Your task to perform on an android device: Go to calendar. Show me events next week Image 0: 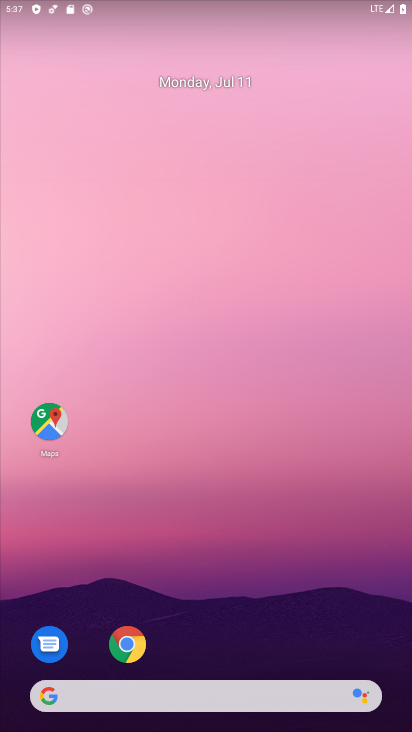
Step 0: drag from (159, 688) to (361, 8)
Your task to perform on an android device: Go to calendar. Show me events next week Image 1: 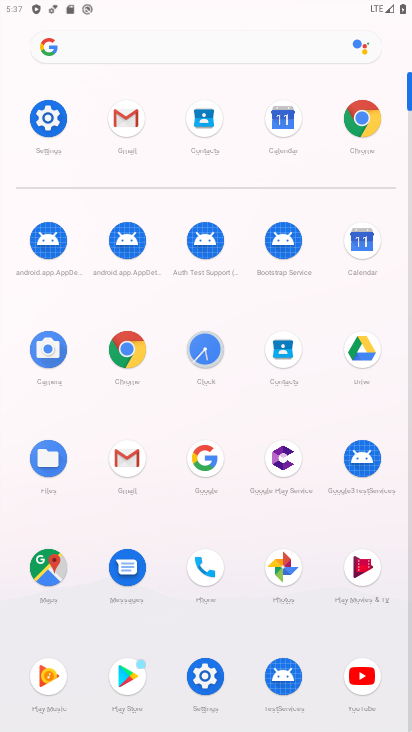
Step 1: click (368, 237)
Your task to perform on an android device: Go to calendar. Show me events next week Image 2: 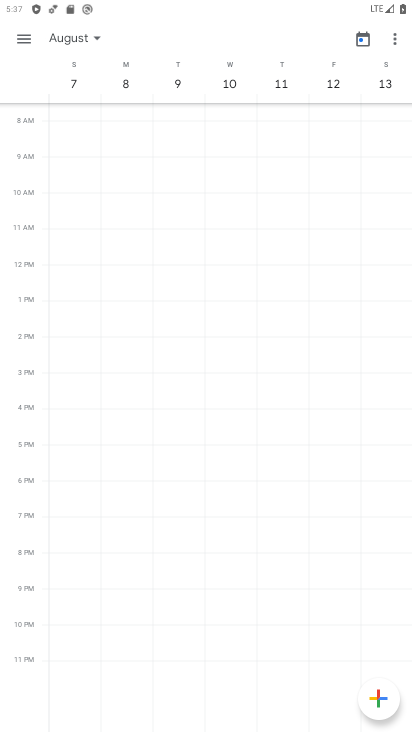
Step 2: click (98, 36)
Your task to perform on an android device: Go to calendar. Show me events next week Image 3: 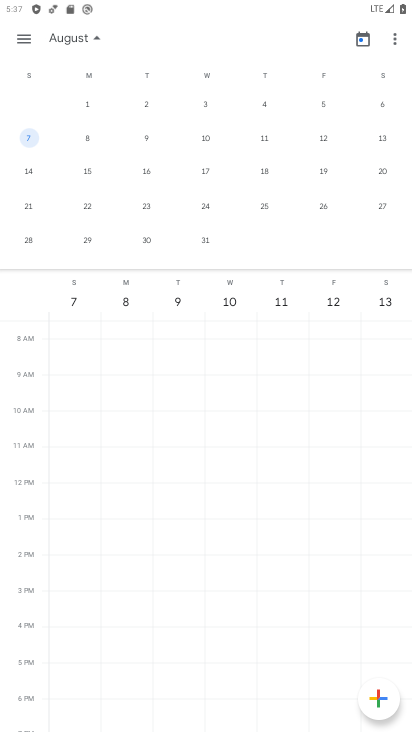
Step 3: drag from (88, 168) to (410, 145)
Your task to perform on an android device: Go to calendar. Show me events next week Image 4: 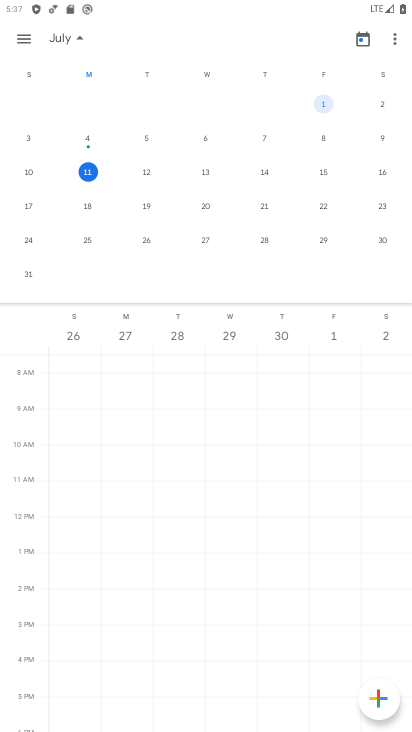
Step 4: click (147, 208)
Your task to perform on an android device: Go to calendar. Show me events next week Image 5: 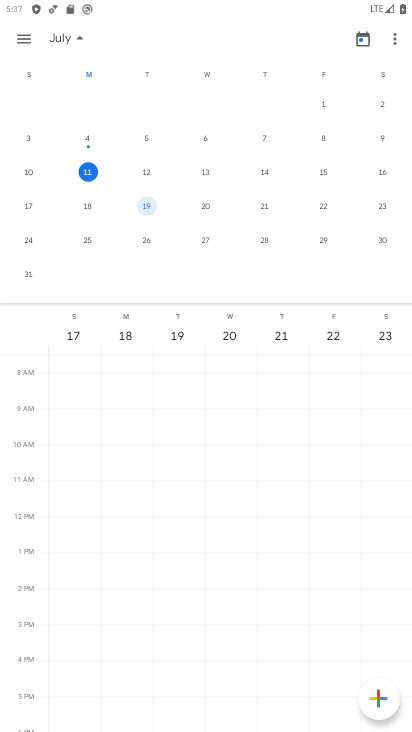
Step 5: task complete